Your task to perform on an android device: Search for "usb-c to usb-a" on walmart, select the first entry, and add it to the cart. Image 0: 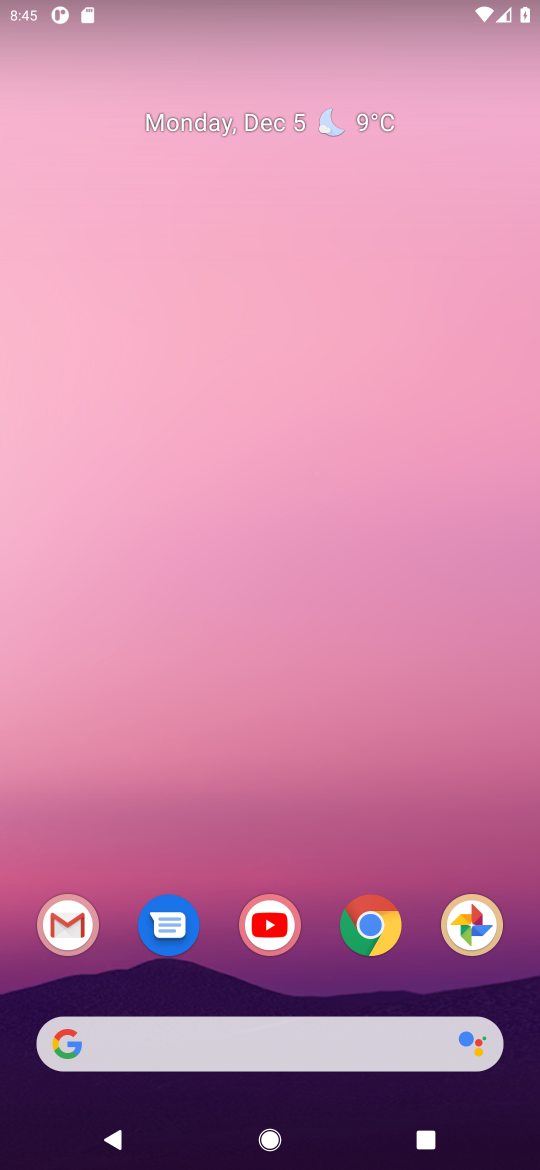
Step 0: click (372, 927)
Your task to perform on an android device: Search for "usb-c to usb-a" on walmart, select the first entry, and add it to the cart. Image 1: 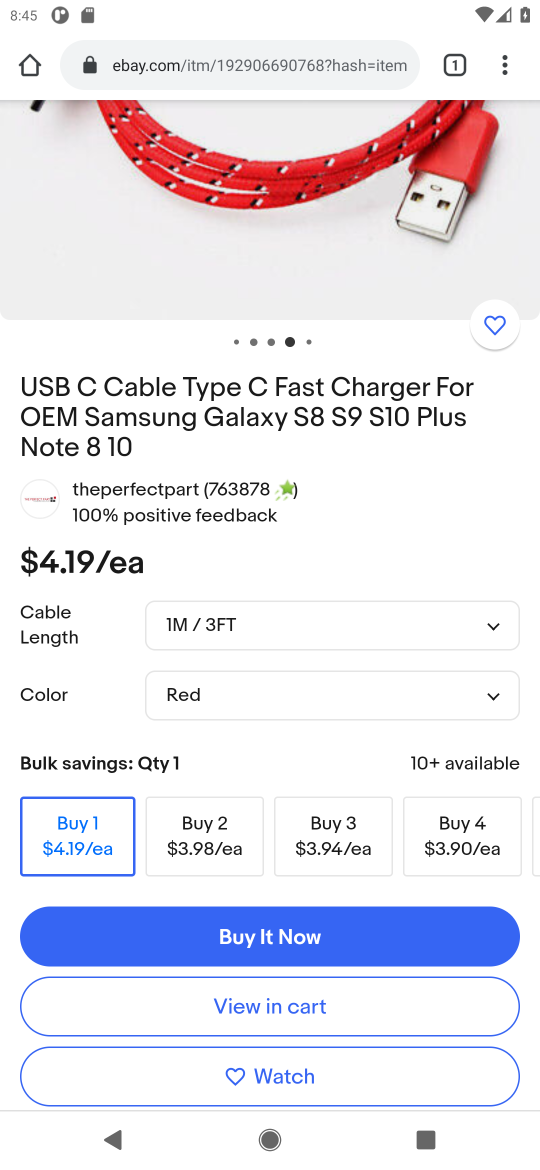
Step 1: click (256, 71)
Your task to perform on an android device: Search for "usb-c to usb-a" on walmart, select the first entry, and add it to the cart. Image 2: 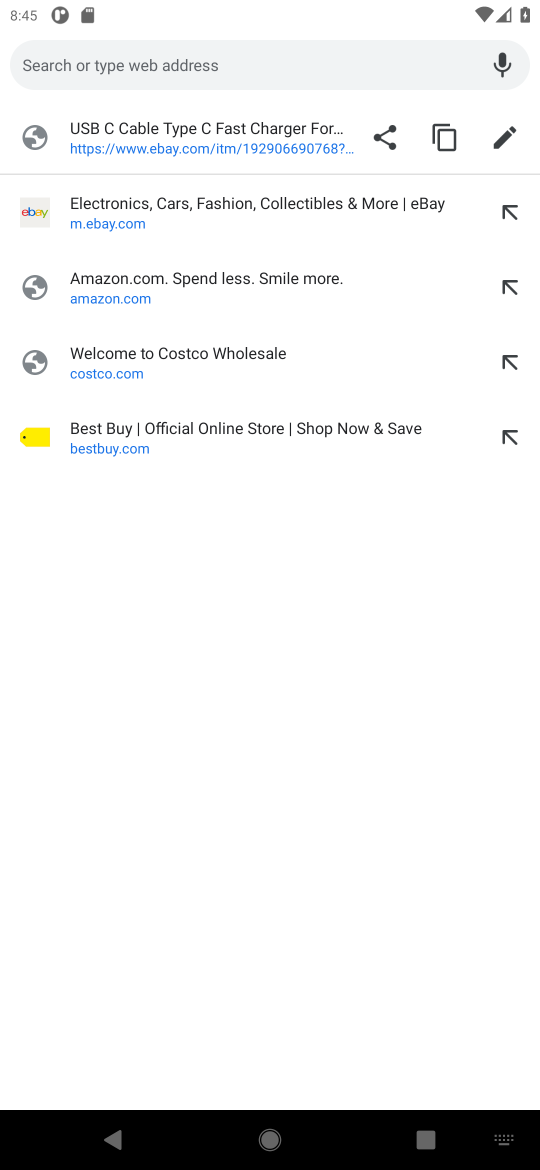
Step 2: type "walmart.com"
Your task to perform on an android device: Search for "usb-c to usb-a" on walmart, select the first entry, and add it to the cart. Image 3: 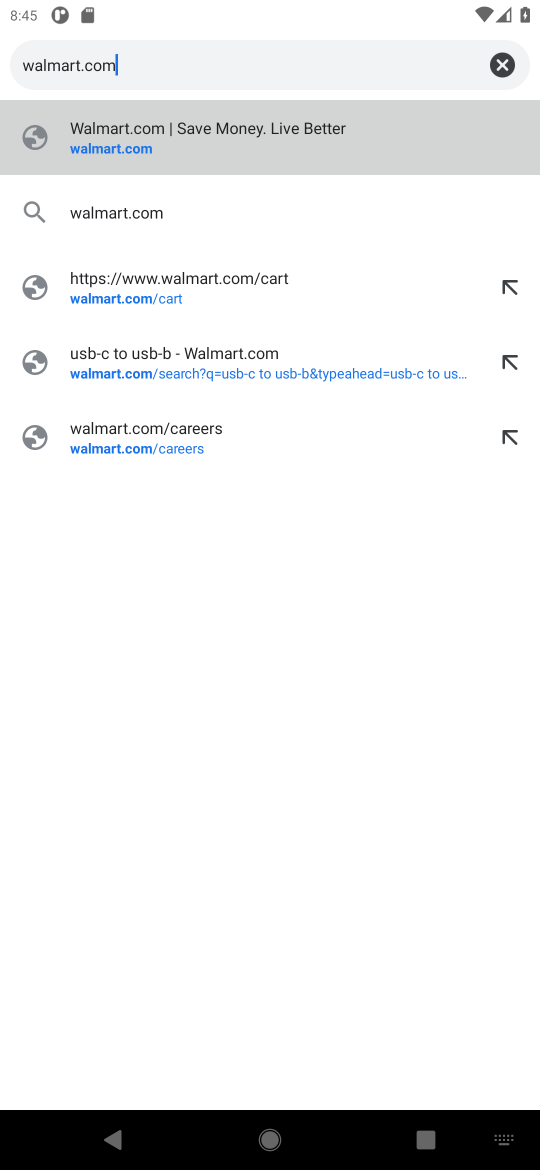
Step 3: click (112, 145)
Your task to perform on an android device: Search for "usb-c to usb-a" on walmart, select the first entry, and add it to the cart. Image 4: 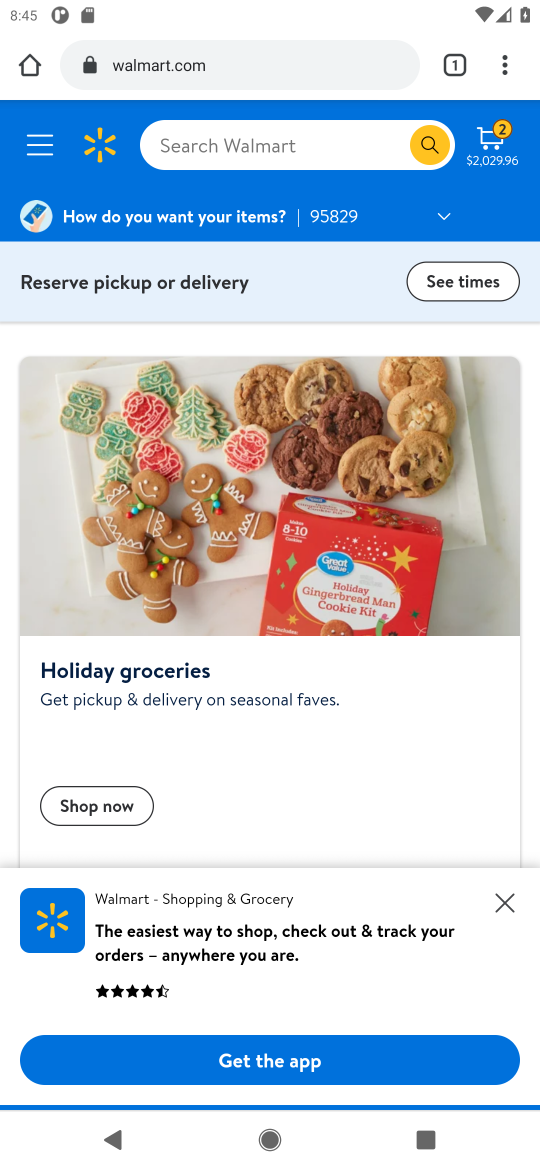
Step 4: click (259, 140)
Your task to perform on an android device: Search for "usb-c to usb-a" on walmart, select the first entry, and add it to the cart. Image 5: 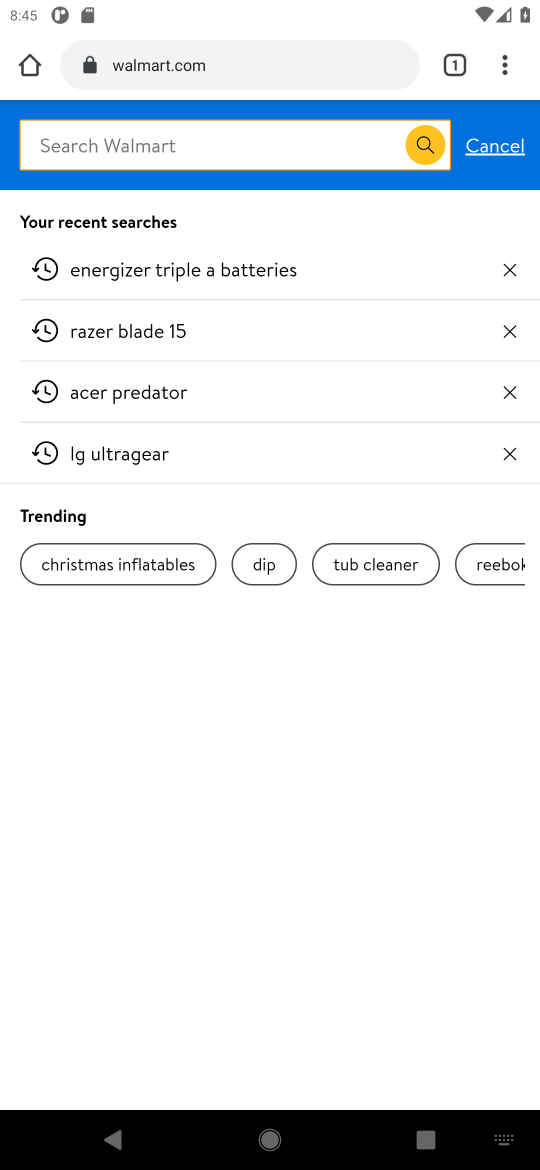
Step 5: type "usb-c to usb-a"
Your task to perform on an android device: Search for "usb-c to usb-a" on walmart, select the first entry, and add it to the cart. Image 6: 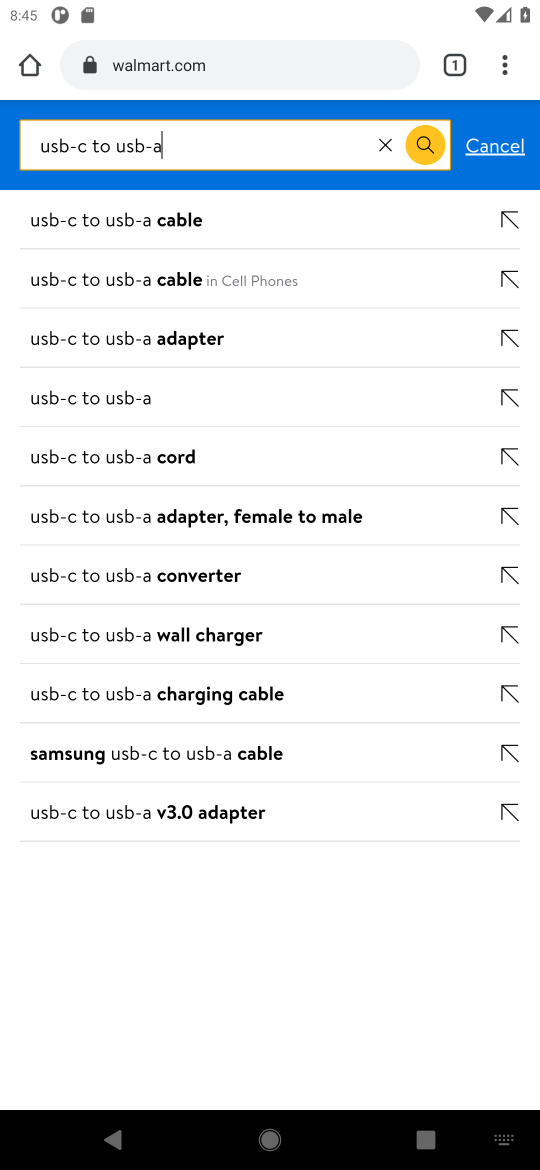
Step 6: click (97, 400)
Your task to perform on an android device: Search for "usb-c to usb-a" on walmart, select the first entry, and add it to the cart. Image 7: 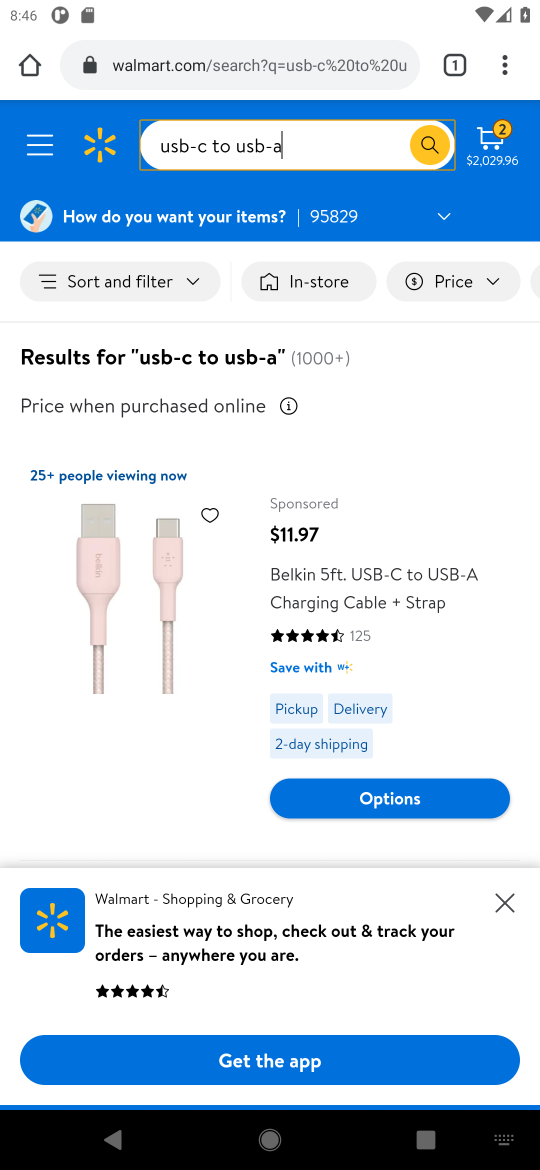
Step 7: click (505, 900)
Your task to perform on an android device: Search for "usb-c to usb-a" on walmart, select the first entry, and add it to the cart. Image 8: 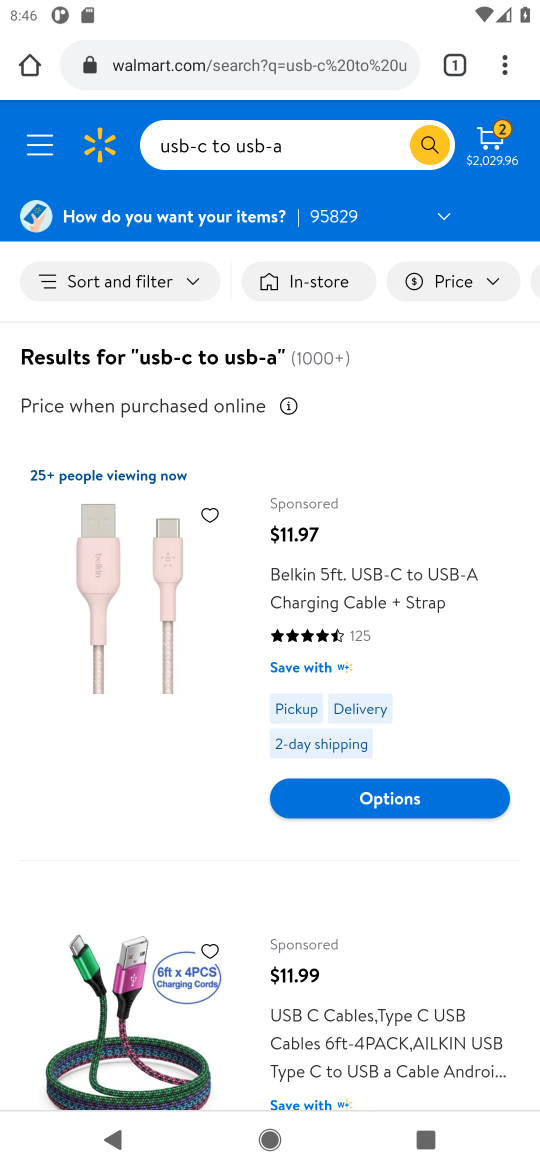
Step 8: click (343, 605)
Your task to perform on an android device: Search for "usb-c to usb-a" on walmart, select the first entry, and add it to the cart. Image 9: 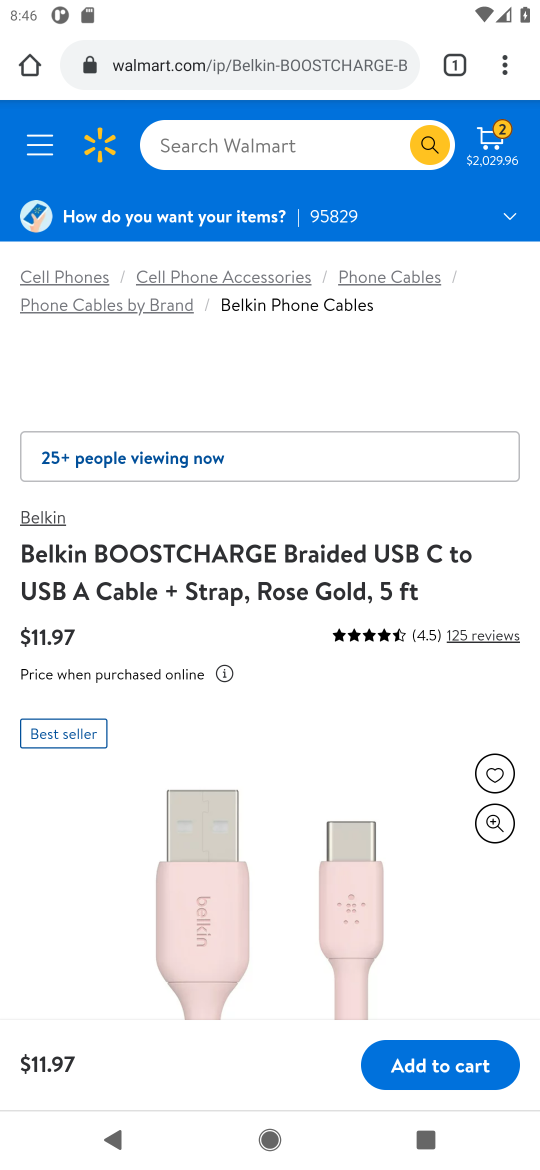
Step 9: click (410, 1070)
Your task to perform on an android device: Search for "usb-c to usb-a" on walmart, select the first entry, and add it to the cart. Image 10: 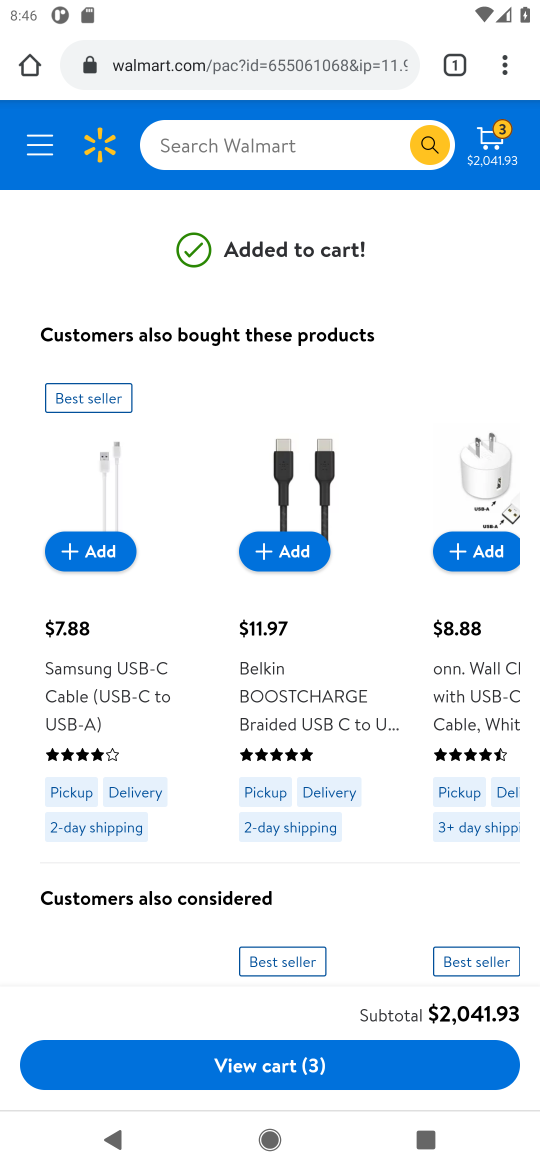
Step 10: task complete